Your task to perform on an android device: allow cookies in the chrome app Image 0: 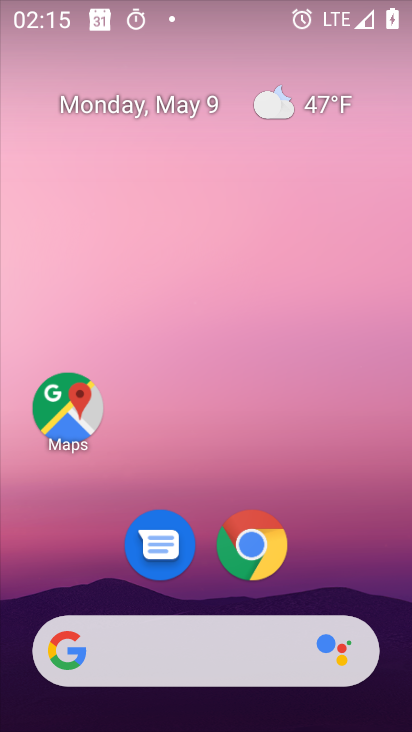
Step 0: drag from (321, 583) to (373, 9)
Your task to perform on an android device: allow cookies in the chrome app Image 1: 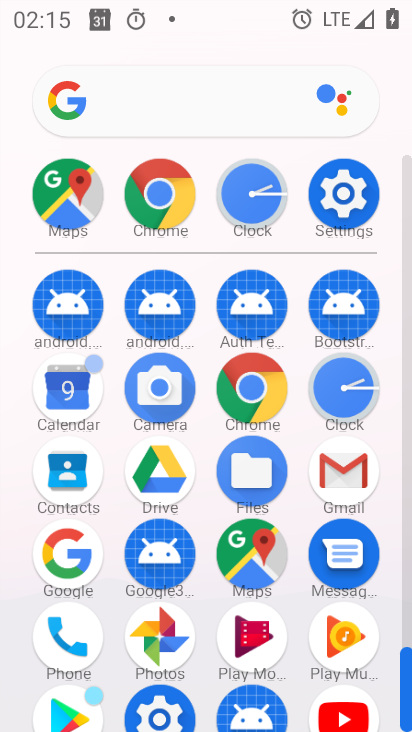
Step 1: click (267, 397)
Your task to perform on an android device: allow cookies in the chrome app Image 2: 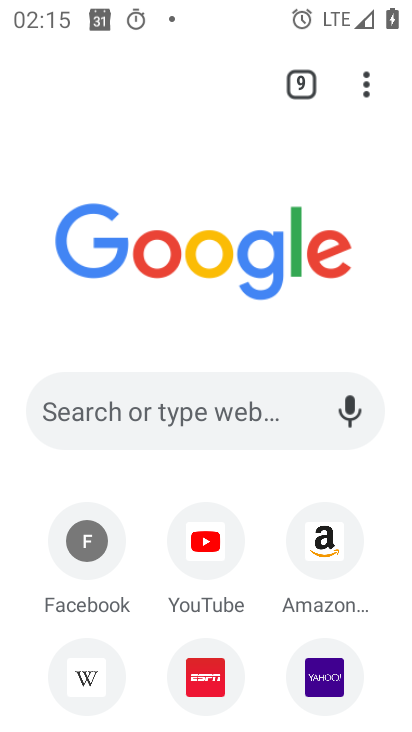
Step 2: drag from (372, 83) to (129, 601)
Your task to perform on an android device: allow cookies in the chrome app Image 3: 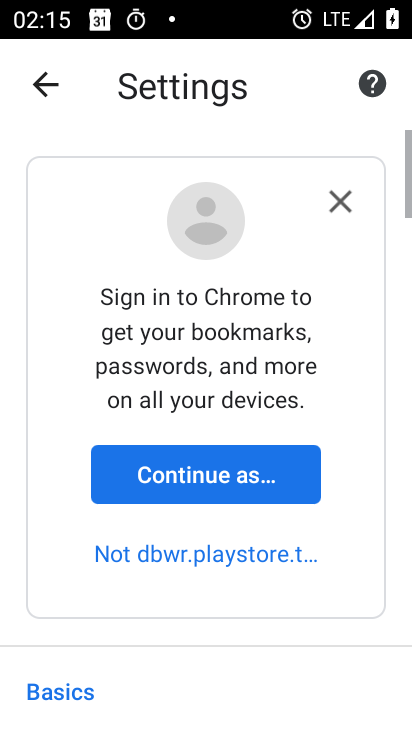
Step 3: drag from (288, 612) to (299, 120)
Your task to perform on an android device: allow cookies in the chrome app Image 4: 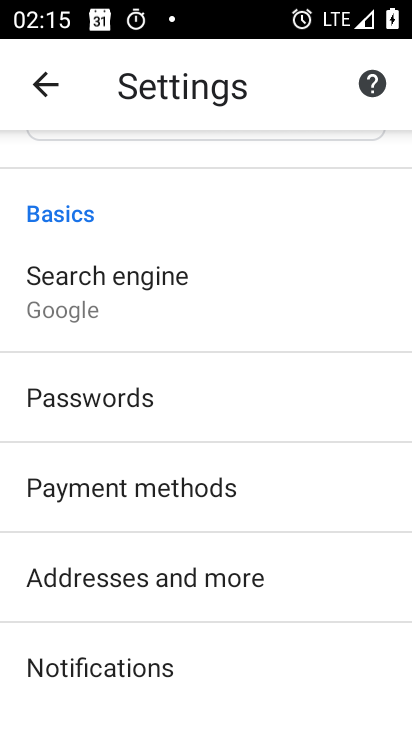
Step 4: drag from (275, 637) to (326, 4)
Your task to perform on an android device: allow cookies in the chrome app Image 5: 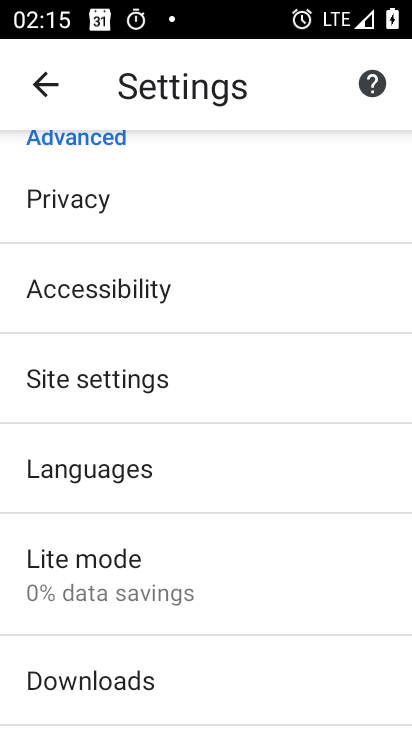
Step 5: click (226, 373)
Your task to perform on an android device: allow cookies in the chrome app Image 6: 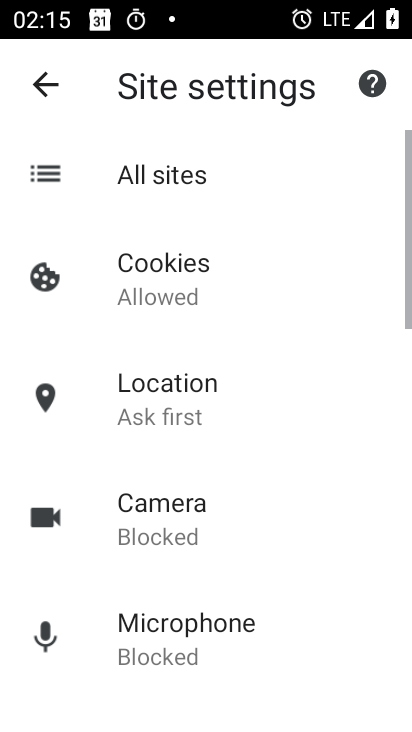
Step 6: drag from (238, 682) to (265, 714)
Your task to perform on an android device: allow cookies in the chrome app Image 7: 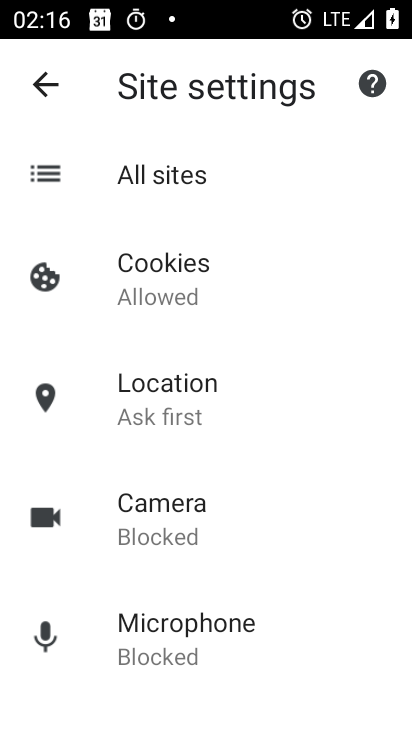
Step 7: click (199, 275)
Your task to perform on an android device: allow cookies in the chrome app Image 8: 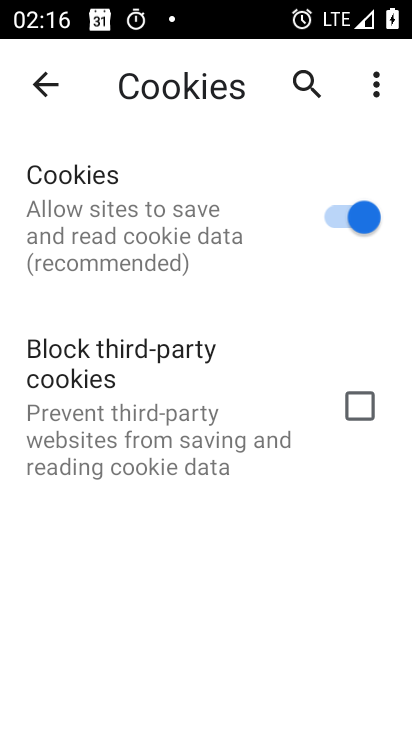
Step 8: task complete